Your task to perform on an android device: Open location settings Image 0: 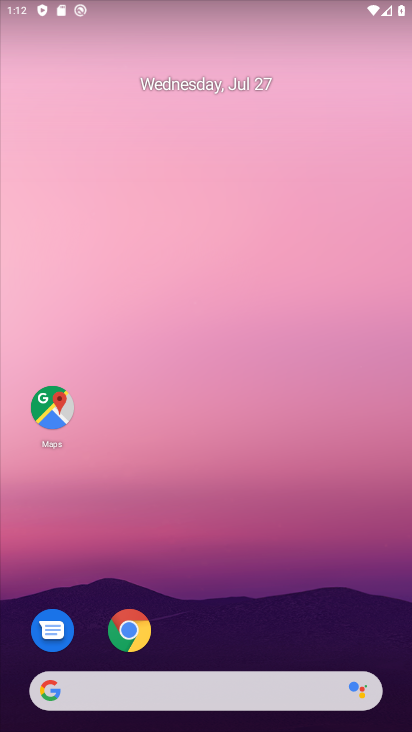
Step 0: drag from (232, 688) to (266, 212)
Your task to perform on an android device: Open location settings Image 1: 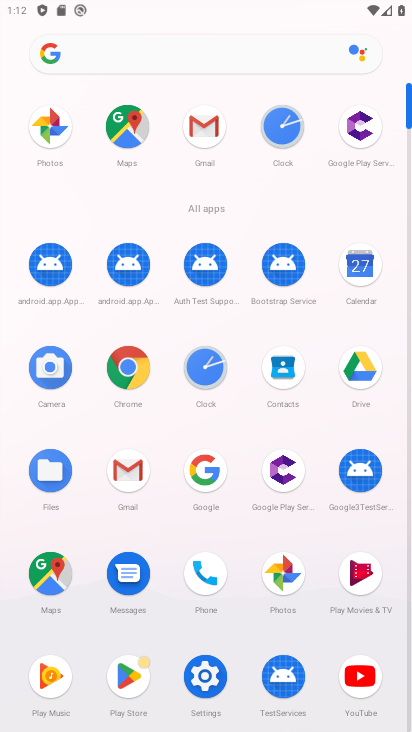
Step 1: click (202, 670)
Your task to perform on an android device: Open location settings Image 2: 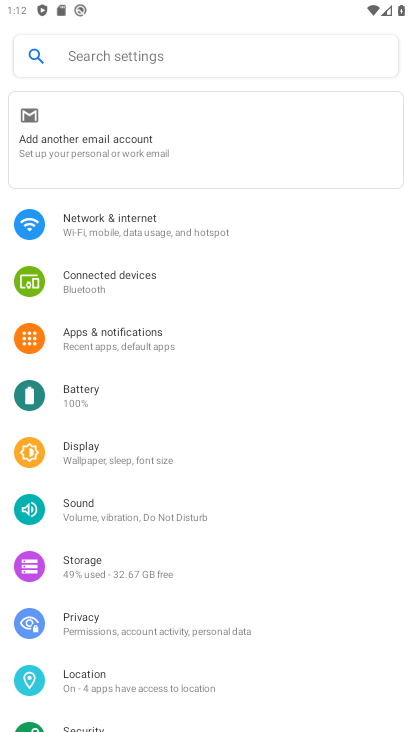
Step 2: click (103, 683)
Your task to perform on an android device: Open location settings Image 3: 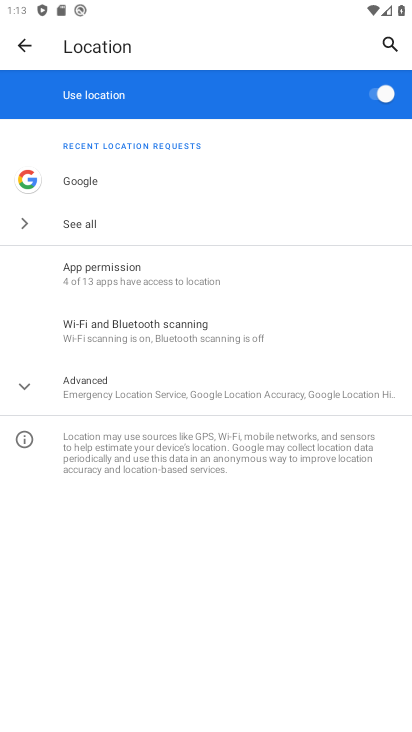
Step 3: task complete